Your task to perform on an android device: see sites visited before in the chrome app Image 0: 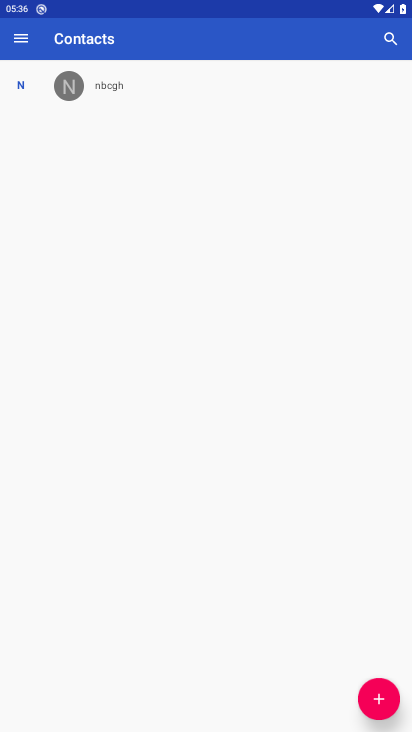
Step 0: press home button
Your task to perform on an android device: see sites visited before in the chrome app Image 1: 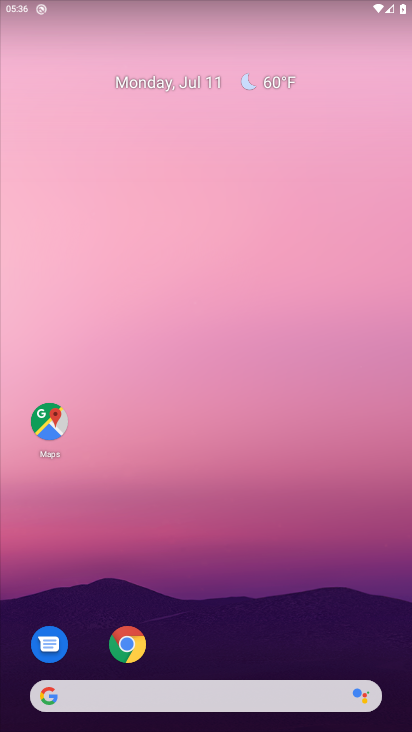
Step 1: drag from (265, 665) to (293, 357)
Your task to perform on an android device: see sites visited before in the chrome app Image 2: 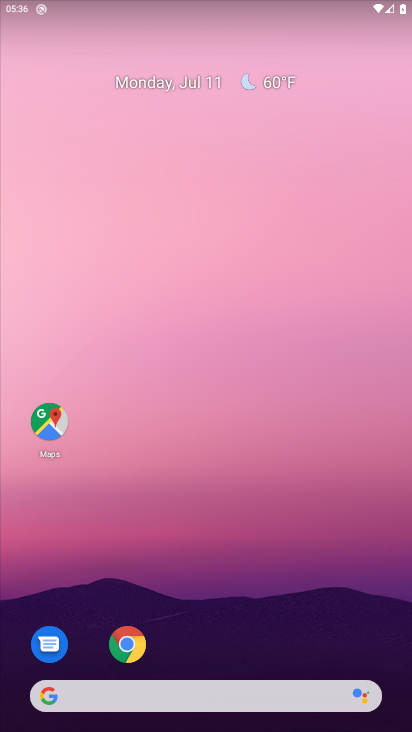
Step 2: click (137, 647)
Your task to perform on an android device: see sites visited before in the chrome app Image 3: 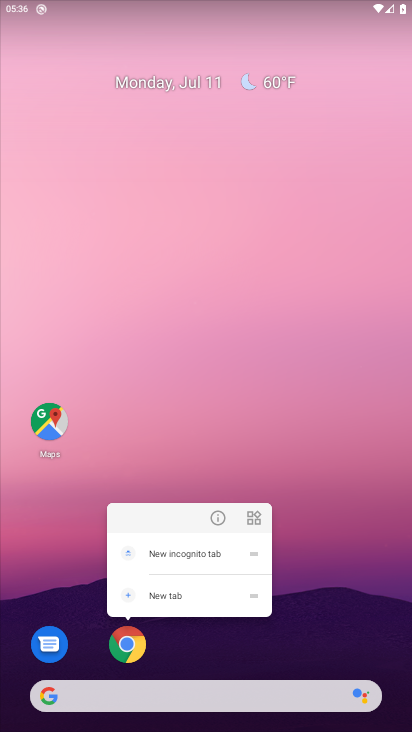
Step 3: click (137, 640)
Your task to perform on an android device: see sites visited before in the chrome app Image 4: 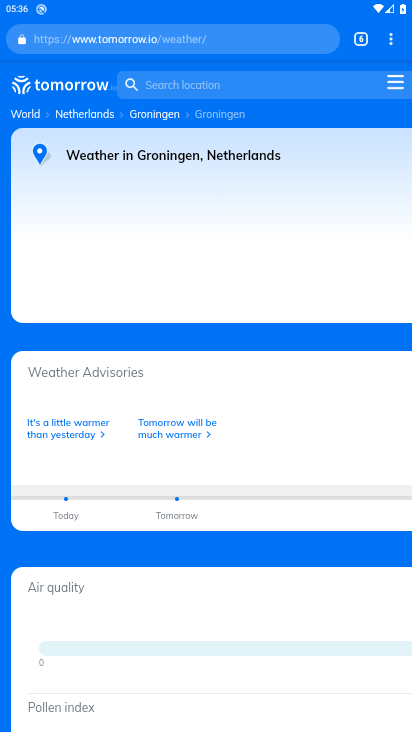
Step 4: click (365, 35)
Your task to perform on an android device: see sites visited before in the chrome app Image 5: 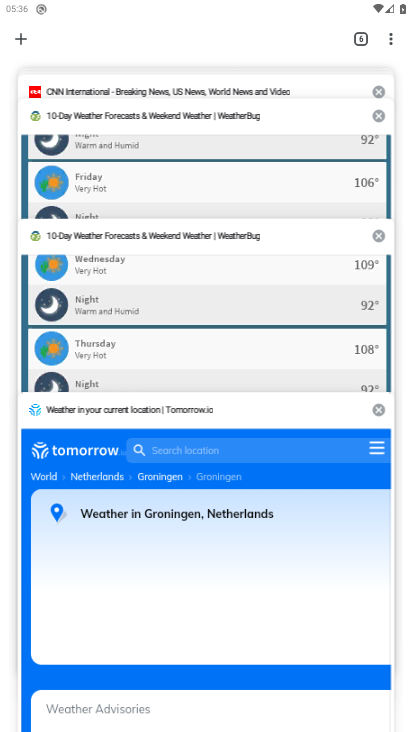
Step 5: click (377, 93)
Your task to perform on an android device: see sites visited before in the chrome app Image 6: 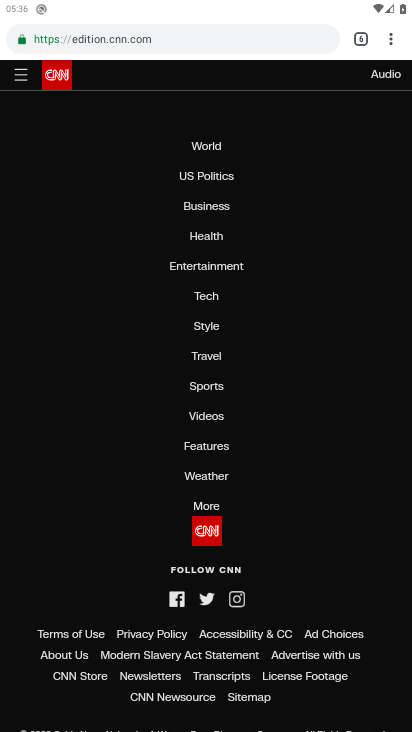
Step 6: click (365, 35)
Your task to perform on an android device: see sites visited before in the chrome app Image 7: 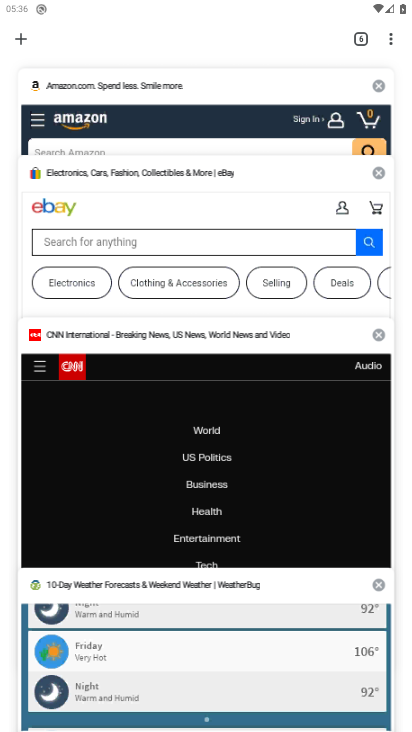
Step 7: click (378, 587)
Your task to perform on an android device: see sites visited before in the chrome app Image 8: 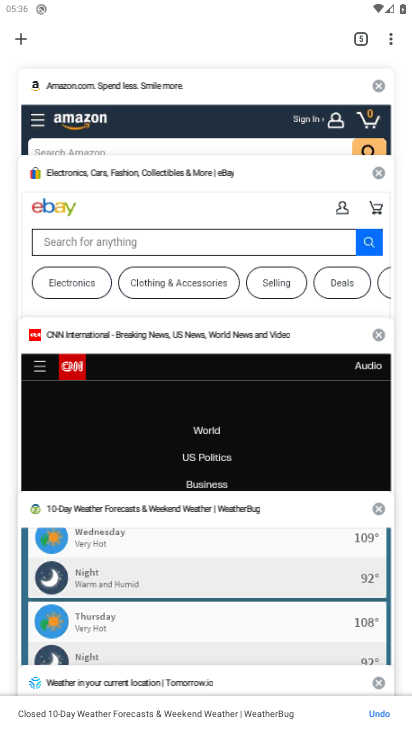
Step 8: click (376, 508)
Your task to perform on an android device: see sites visited before in the chrome app Image 9: 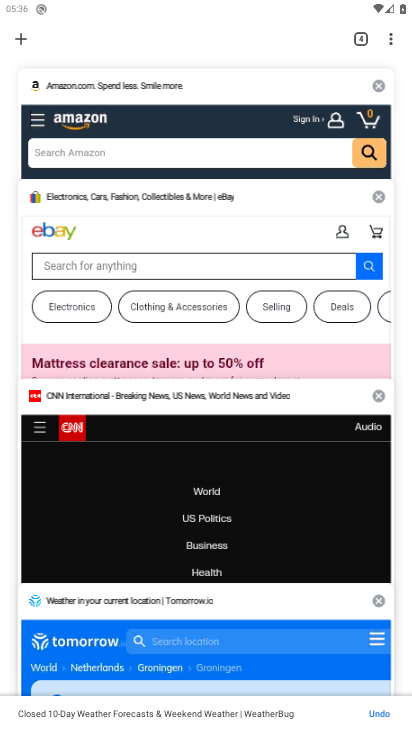
Step 9: click (378, 600)
Your task to perform on an android device: see sites visited before in the chrome app Image 10: 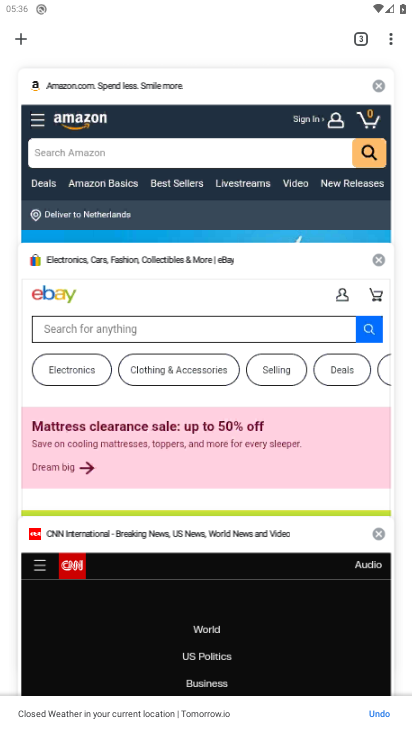
Step 10: click (380, 531)
Your task to perform on an android device: see sites visited before in the chrome app Image 11: 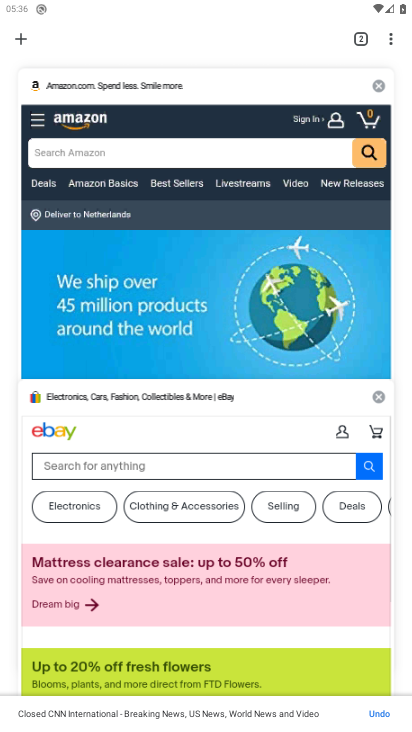
Step 11: click (383, 398)
Your task to perform on an android device: see sites visited before in the chrome app Image 12: 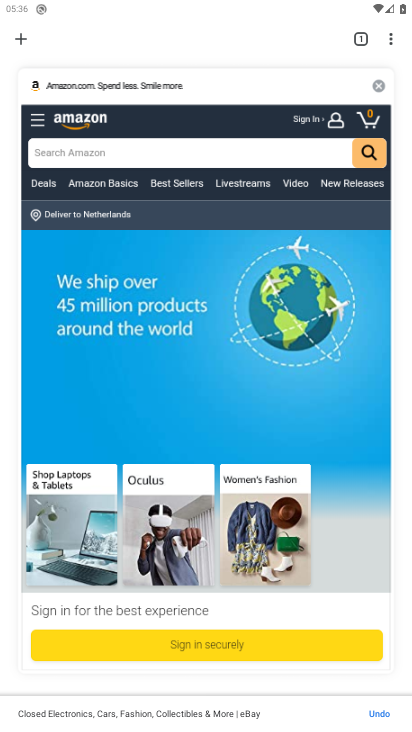
Step 12: click (380, 89)
Your task to perform on an android device: see sites visited before in the chrome app Image 13: 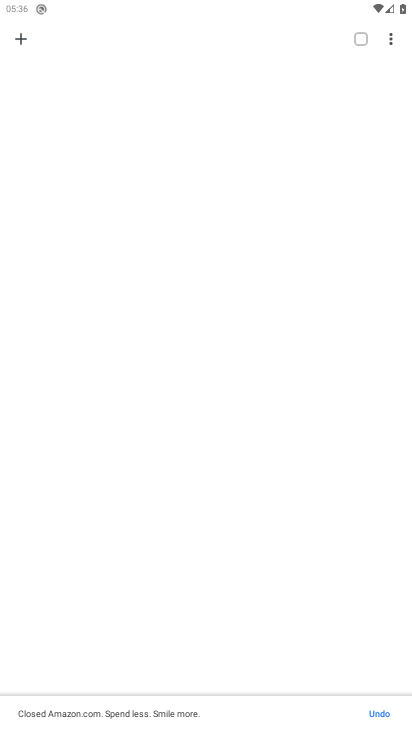
Step 13: task complete